Your task to perform on an android device: Go to Reddit.com Image 0: 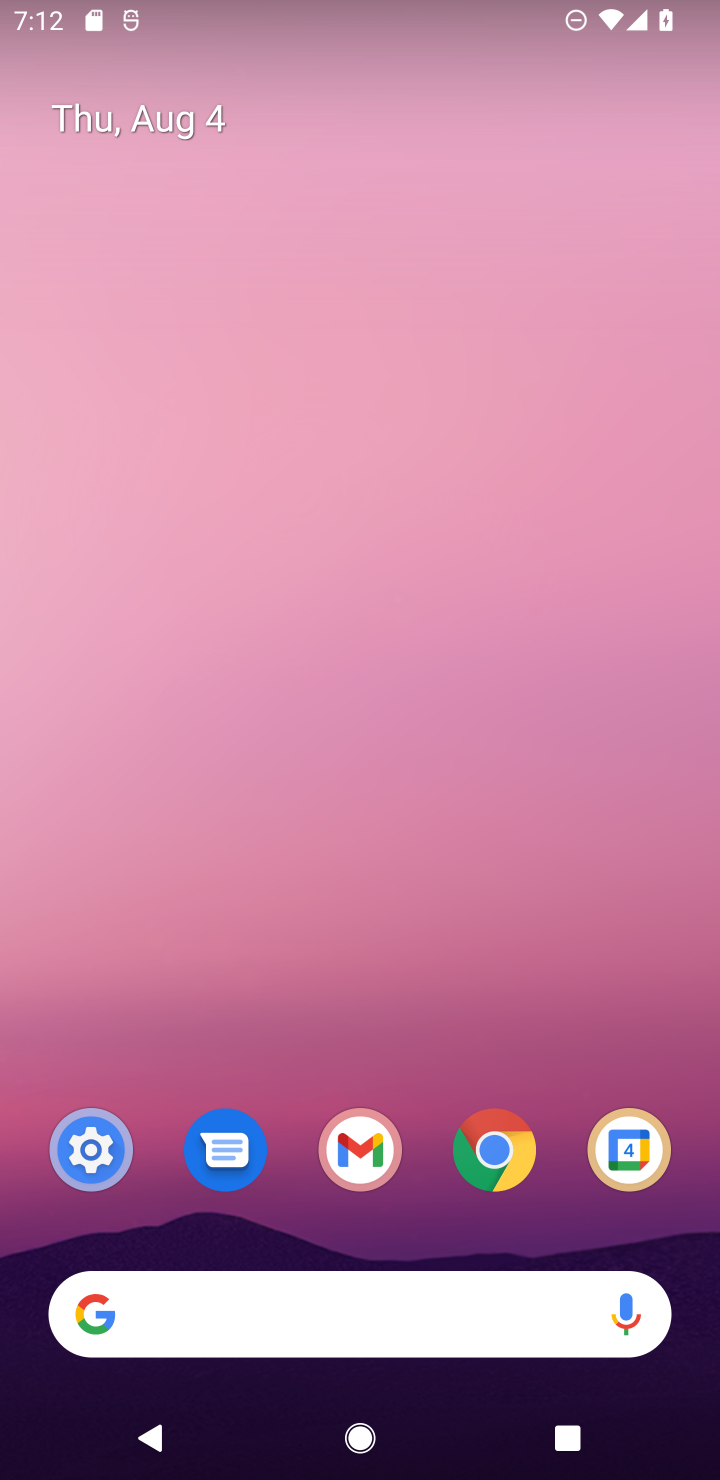
Step 0: drag from (218, 1194) to (173, 12)
Your task to perform on an android device: Go to Reddit.com Image 1: 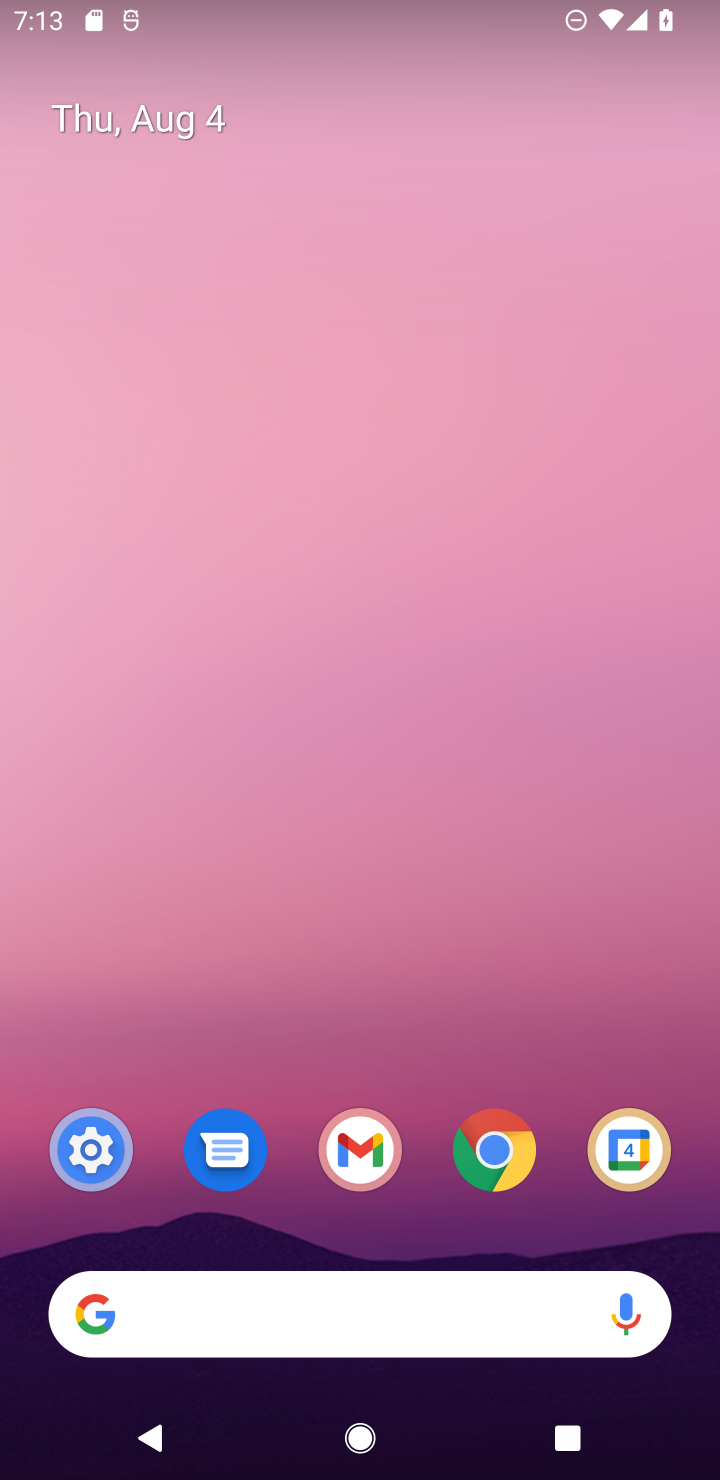
Step 1: drag from (508, 1053) to (537, 94)
Your task to perform on an android device: Go to Reddit.com Image 2: 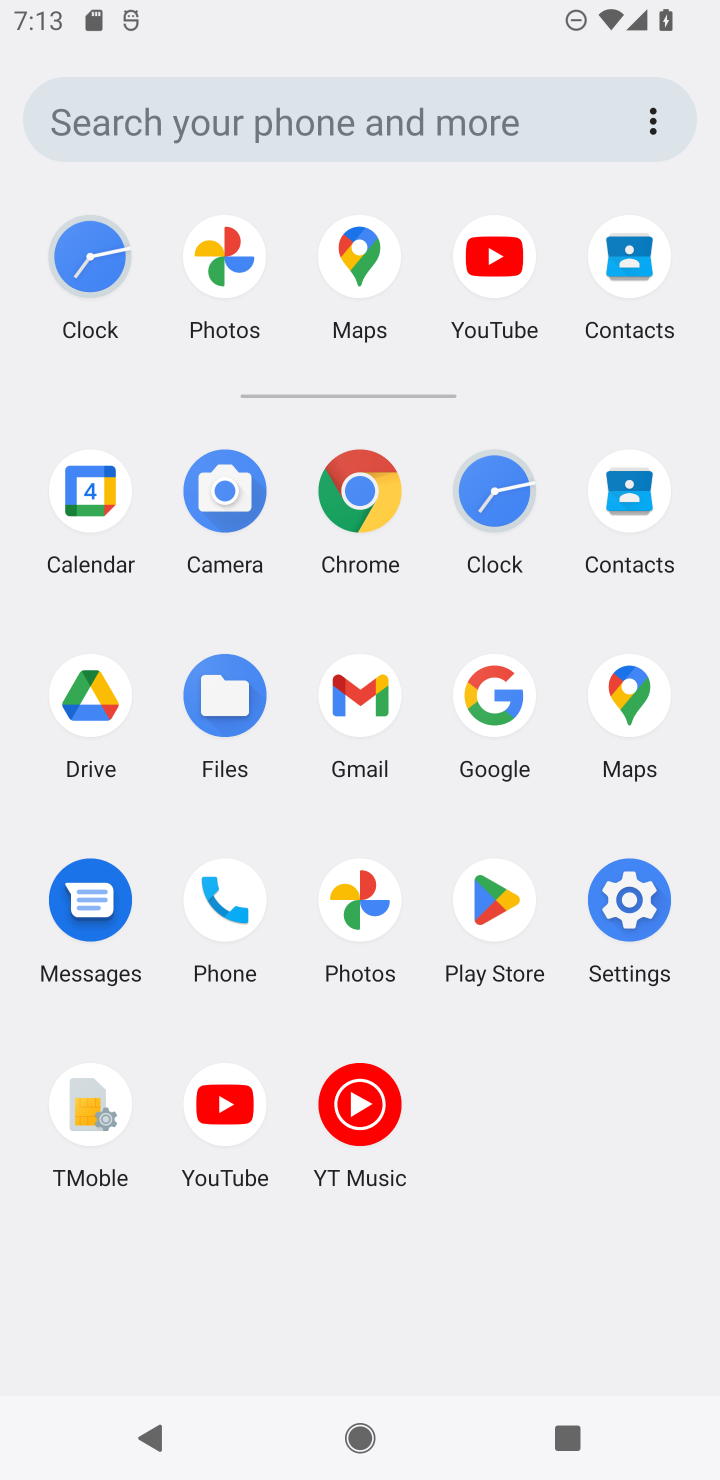
Step 2: click (345, 502)
Your task to perform on an android device: Go to Reddit.com Image 3: 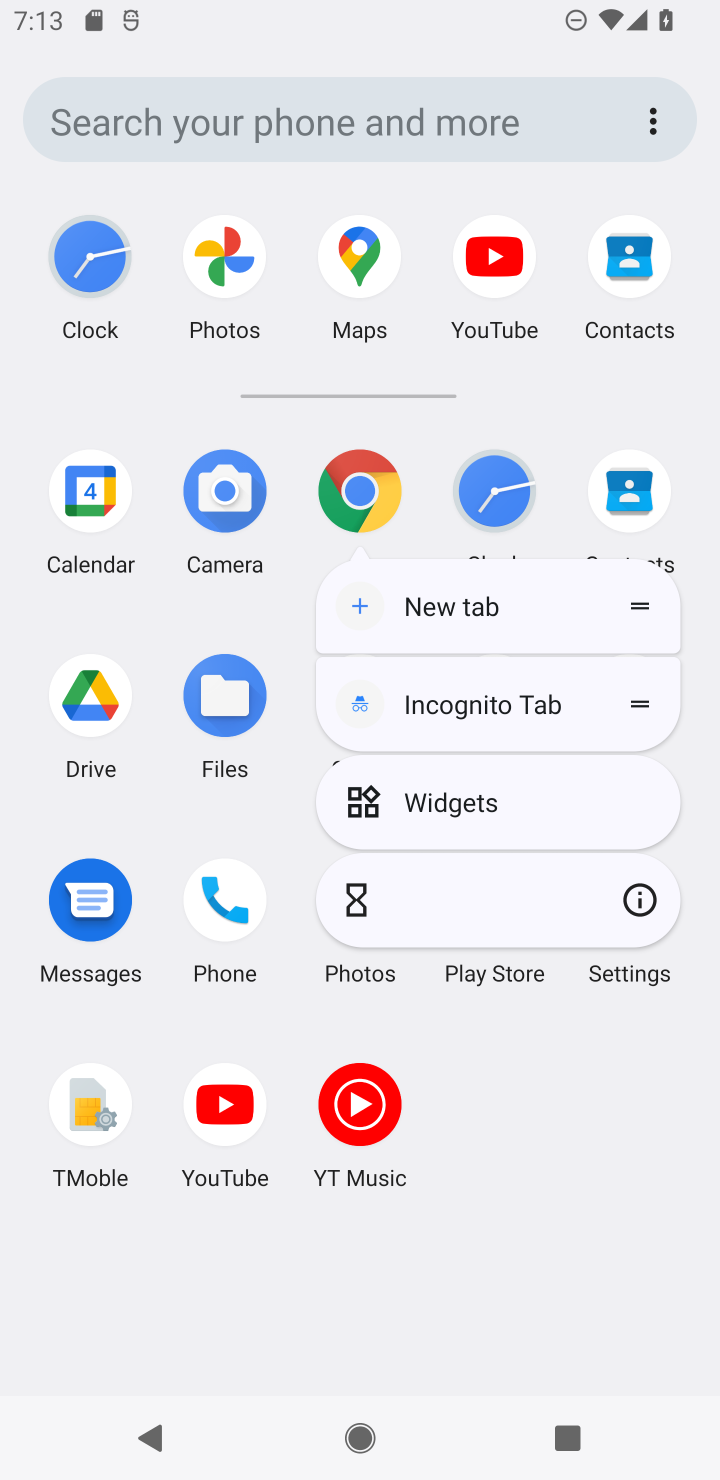
Step 3: click (369, 500)
Your task to perform on an android device: Go to Reddit.com Image 4: 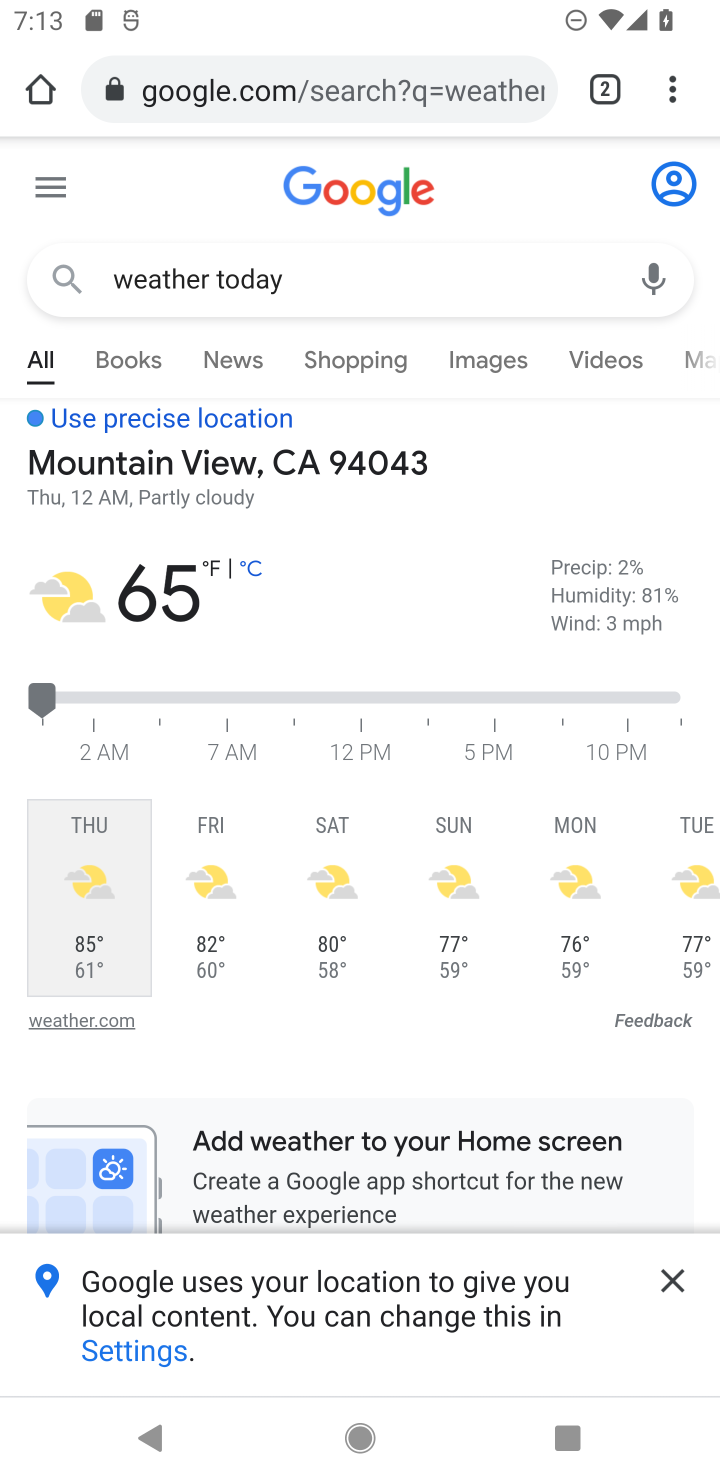
Step 4: click (421, 98)
Your task to perform on an android device: Go to Reddit.com Image 5: 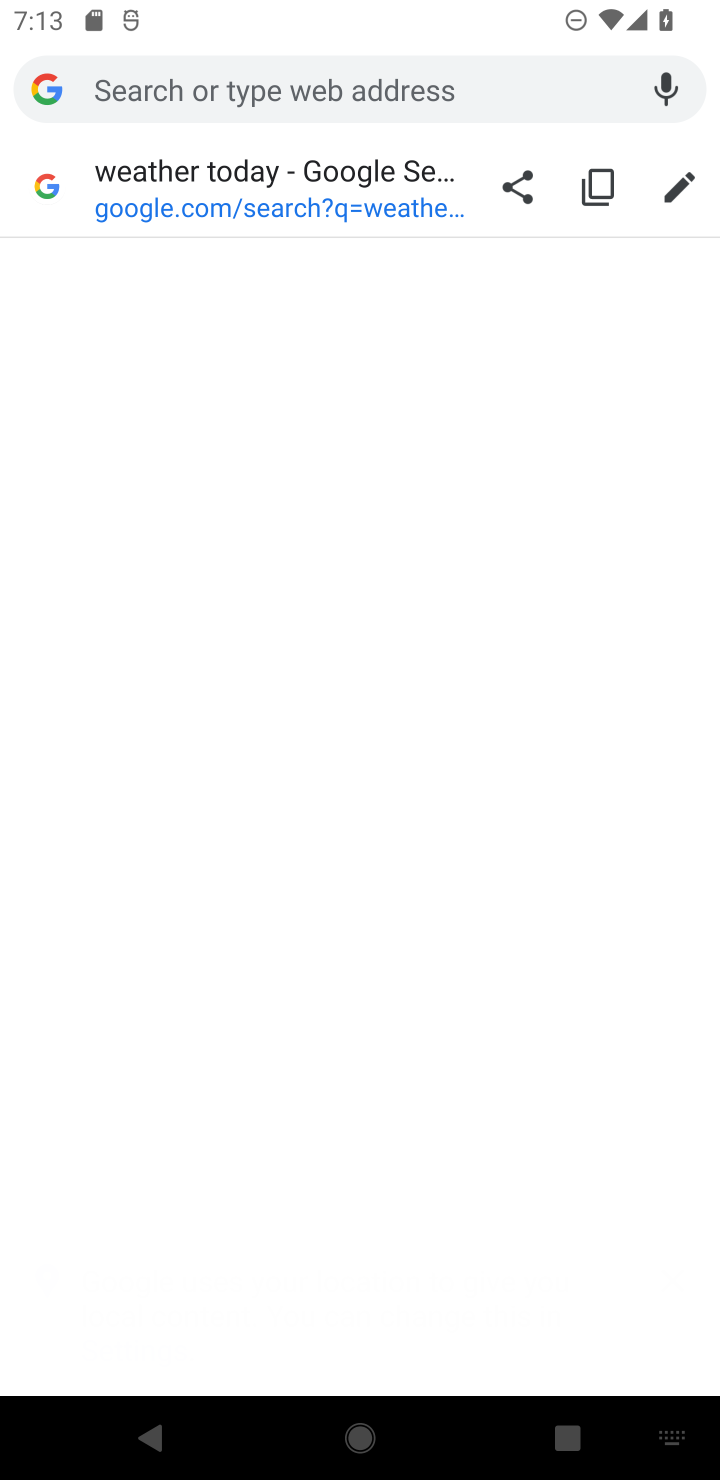
Step 5: type "reddit.com"
Your task to perform on an android device: Go to Reddit.com Image 6: 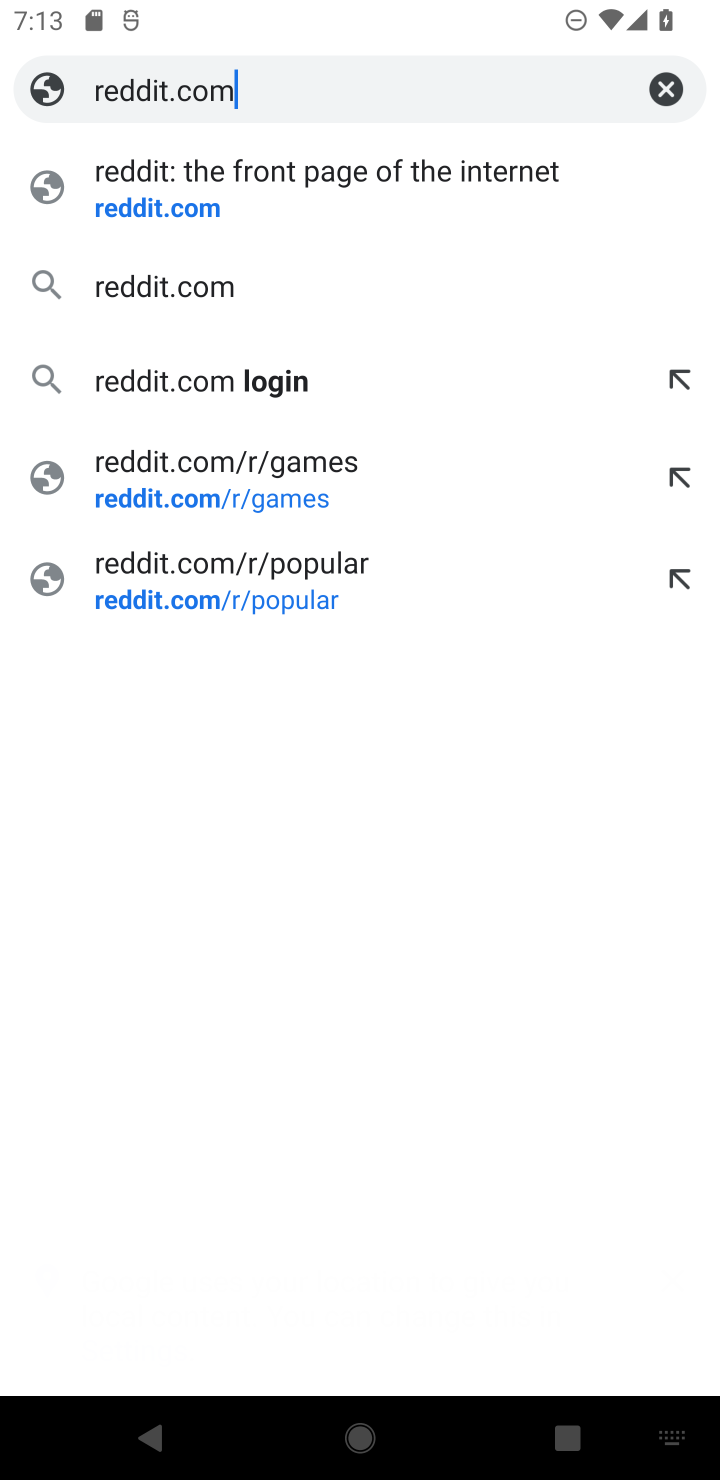
Step 6: click (232, 206)
Your task to perform on an android device: Go to Reddit.com Image 7: 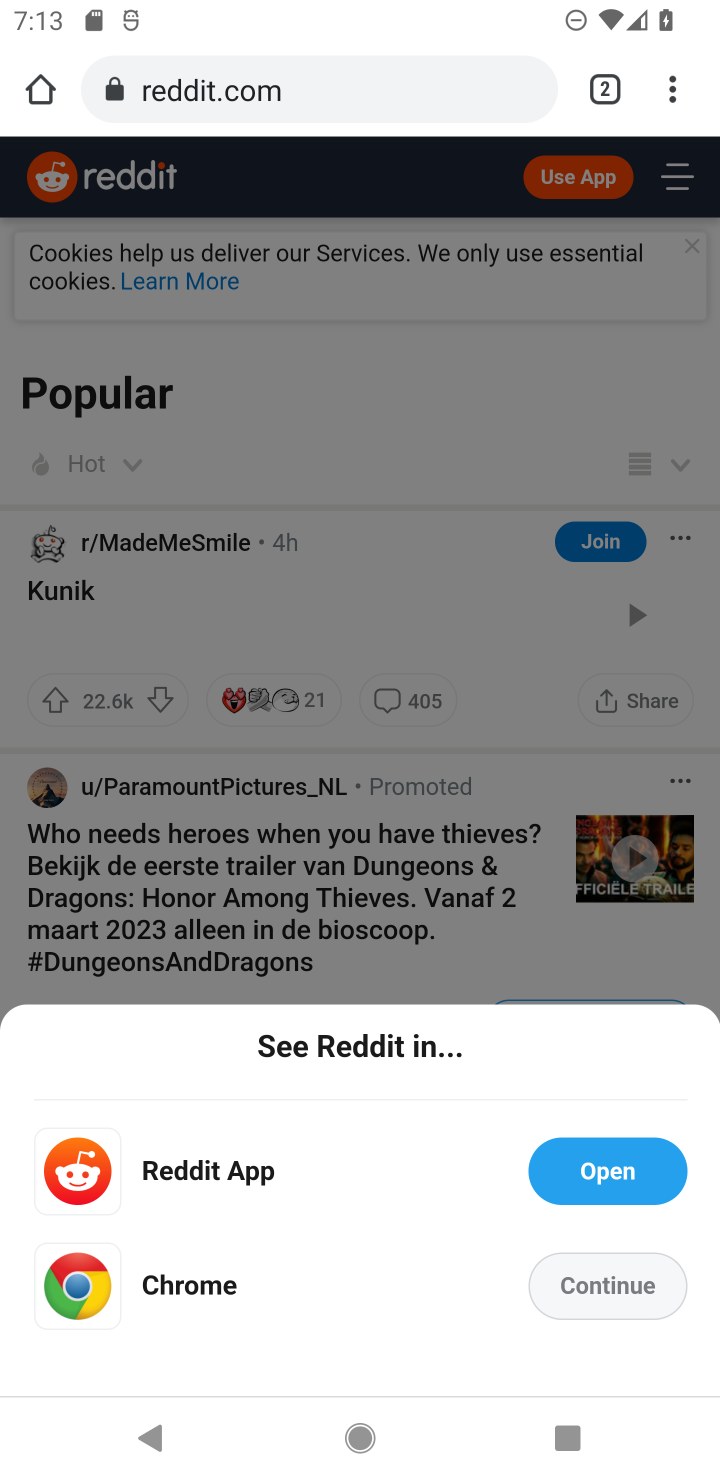
Step 7: task complete